Your task to perform on an android device: Open eBay Image 0: 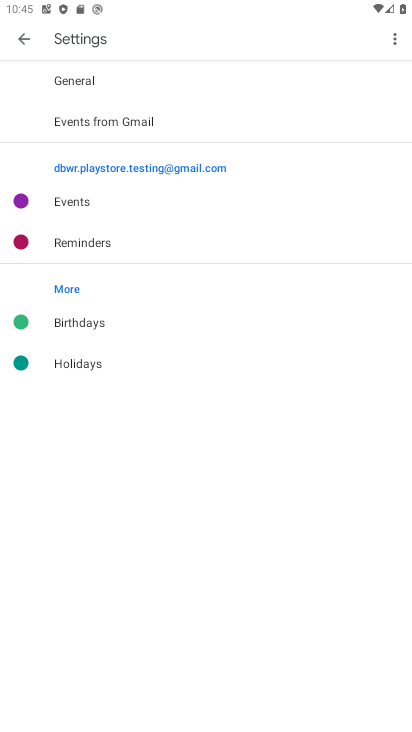
Step 0: press home button
Your task to perform on an android device: Open eBay Image 1: 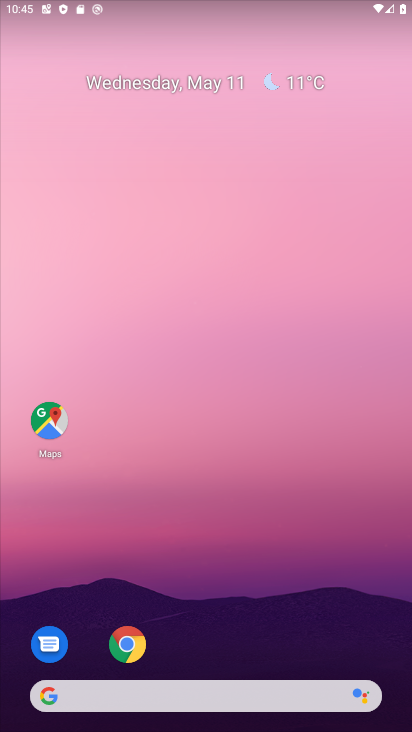
Step 1: click (127, 647)
Your task to perform on an android device: Open eBay Image 2: 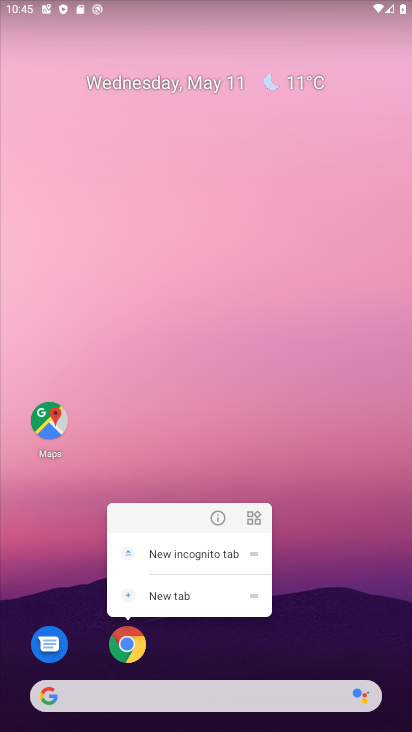
Step 2: click (127, 647)
Your task to perform on an android device: Open eBay Image 3: 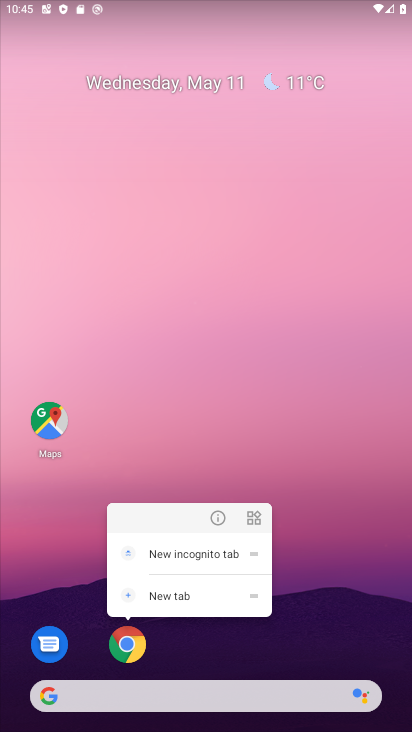
Step 3: click (127, 647)
Your task to perform on an android device: Open eBay Image 4: 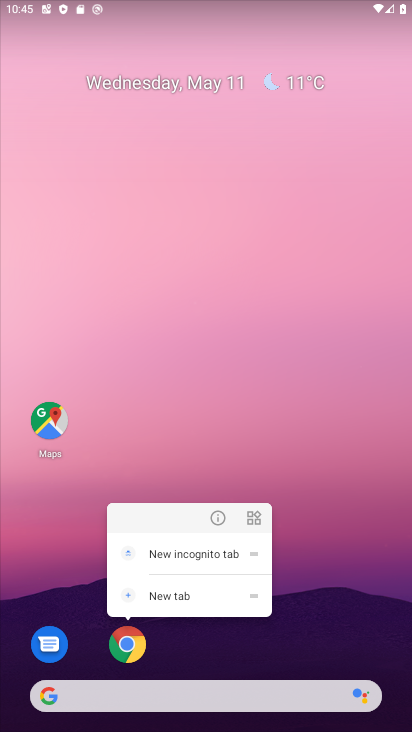
Step 4: click (127, 647)
Your task to perform on an android device: Open eBay Image 5: 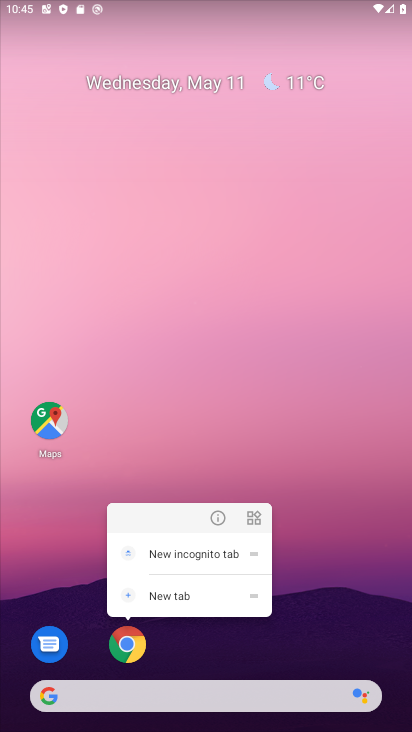
Step 5: click (343, 601)
Your task to perform on an android device: Open eBay Image 6: 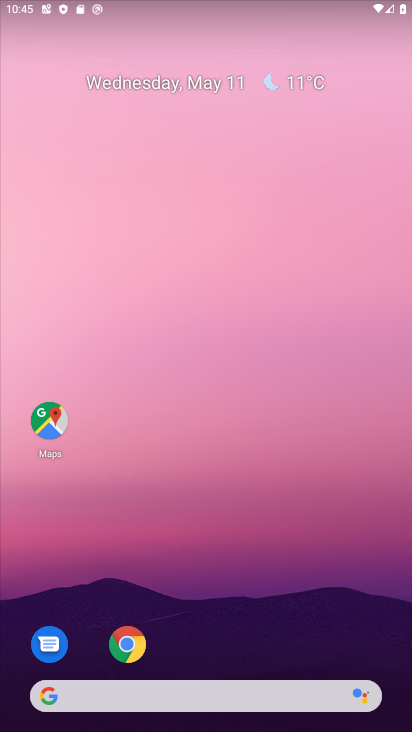
Step 6: click (140, 644)
Your task to perform on an android device: Open eBay Image 7: 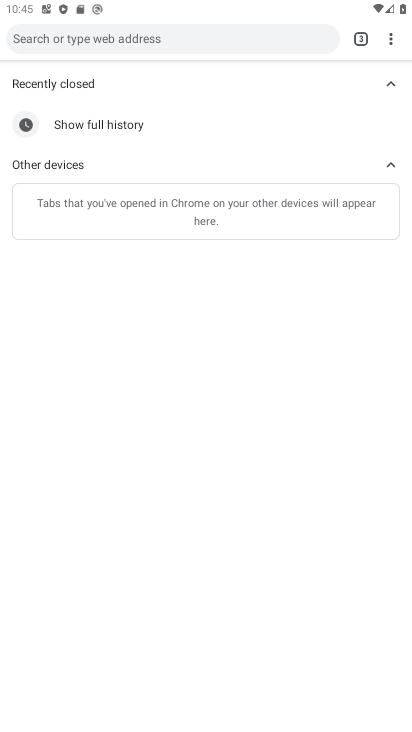
Step 7: click (72, 41)
Your task to perform on an android device: Open eBay Image 8: 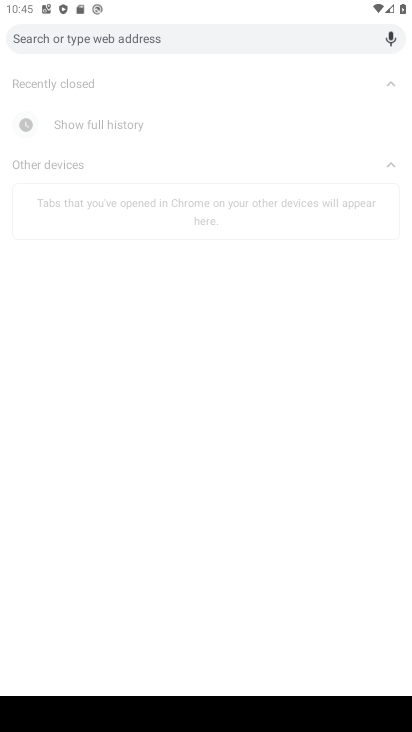
Step 8: type "ebay"
Your task to perform on an android device: Open eBay Image 9: 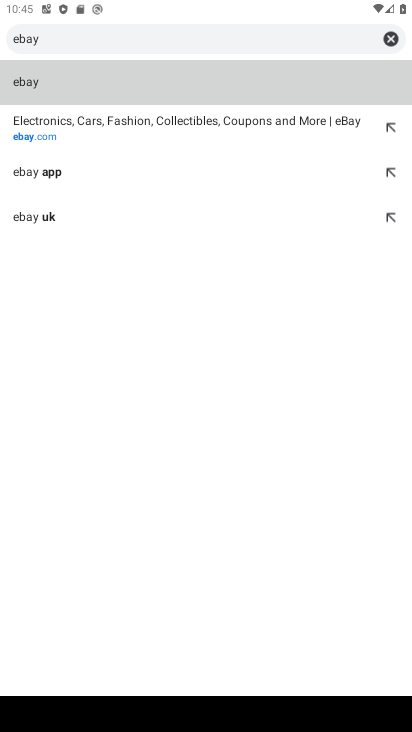
Step 9: click (23, 87)
Your task to perform on an android device: Open eBay Image 10: 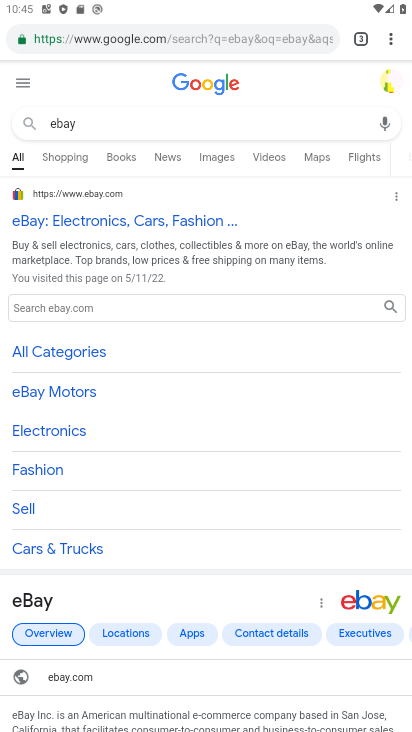
Step 10: click (39, 220)
Your task to perform on an android device: Open eBay Image 11: 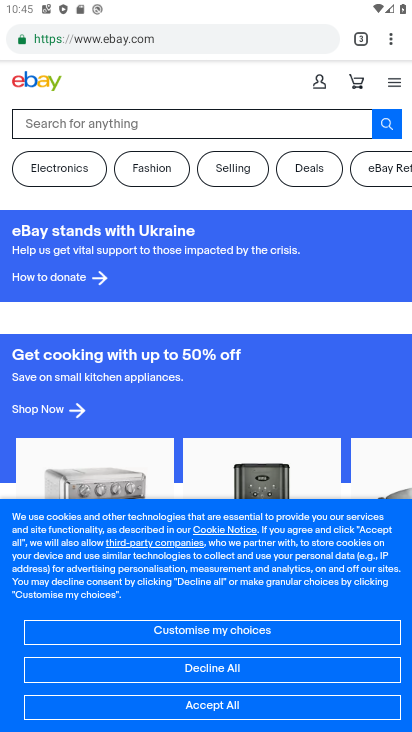
Step 11: task complete